Your task to perform on an android device: Search for a nice rug on Crate & Barrel Image 0: 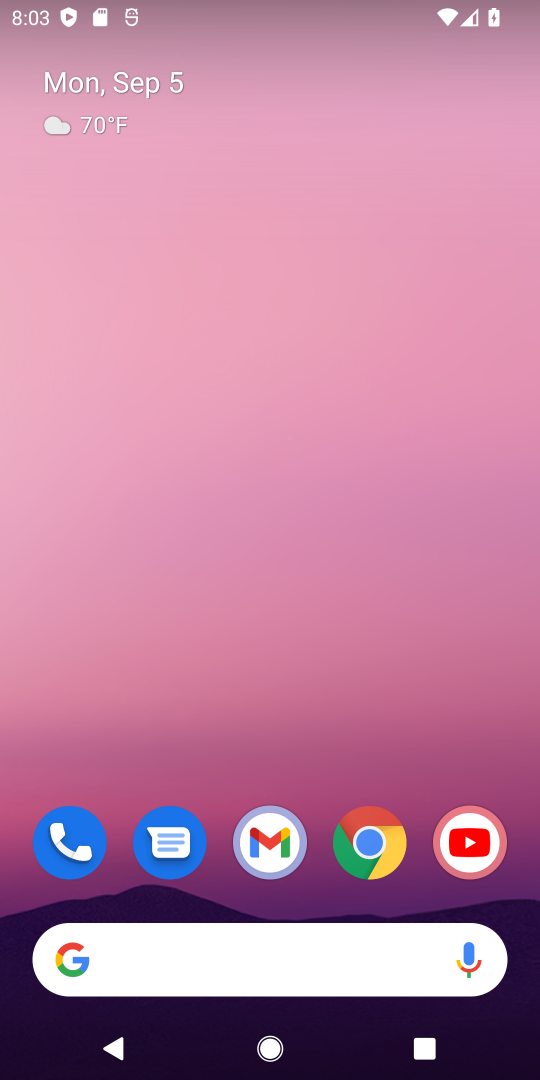
Step 0: click (371, 844)
Your task to perform on an android device: Search for a nice rug on Crate & Barrel Image 1: 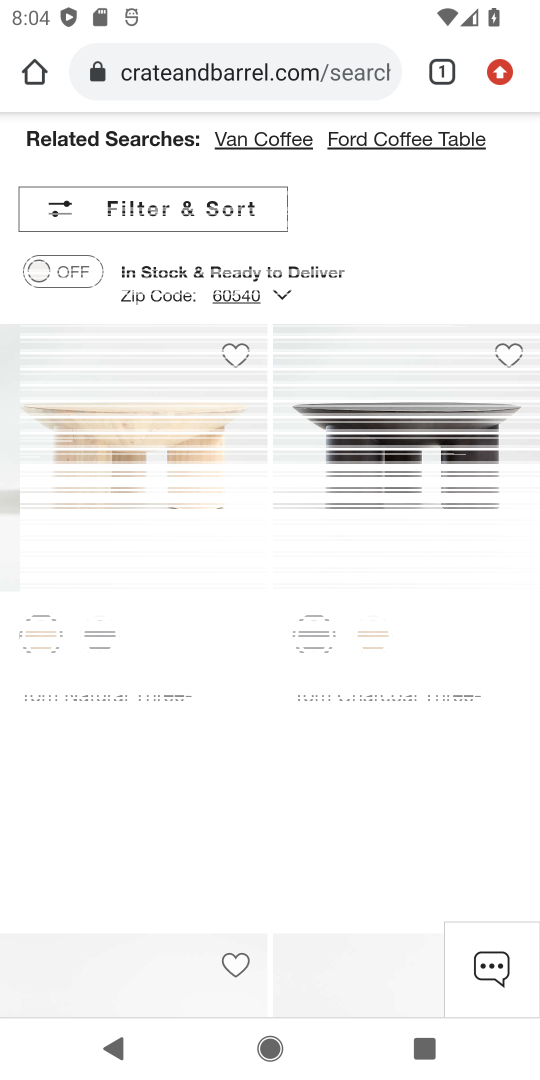
Step 1: click (313, 72)
Your task to perform on an android device: Search for a nice rug on Crate & Barrel Image 2: 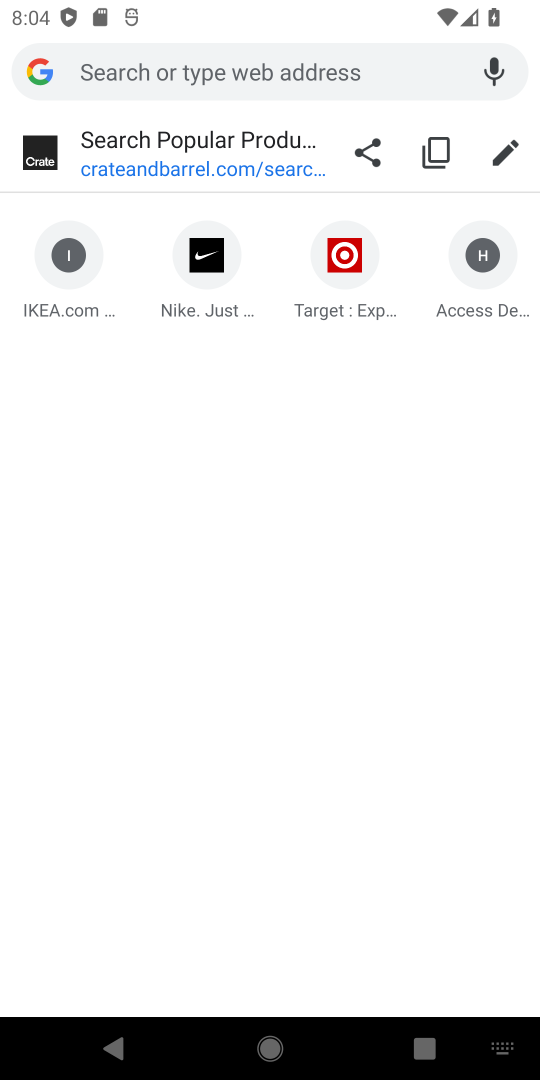
Step 2: click (262, 68)
Your task to perform on an android device: Search for a nice rug on Crate & Barrel Image 3: 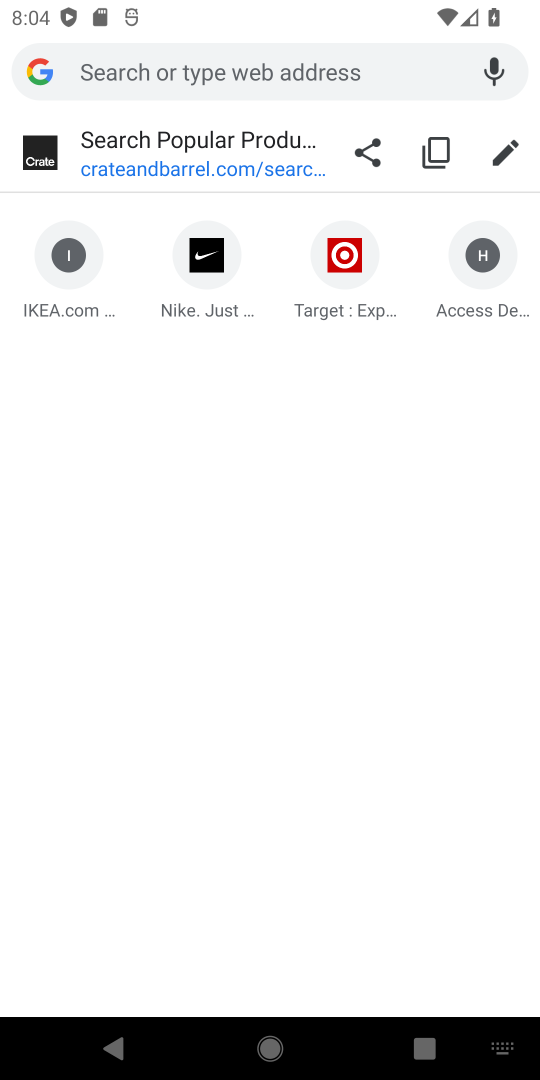
Step 3: type "Crate & Barrel"
Your task to perform on an android device: Search for a nice rug on Crate & Barrel Image 4: 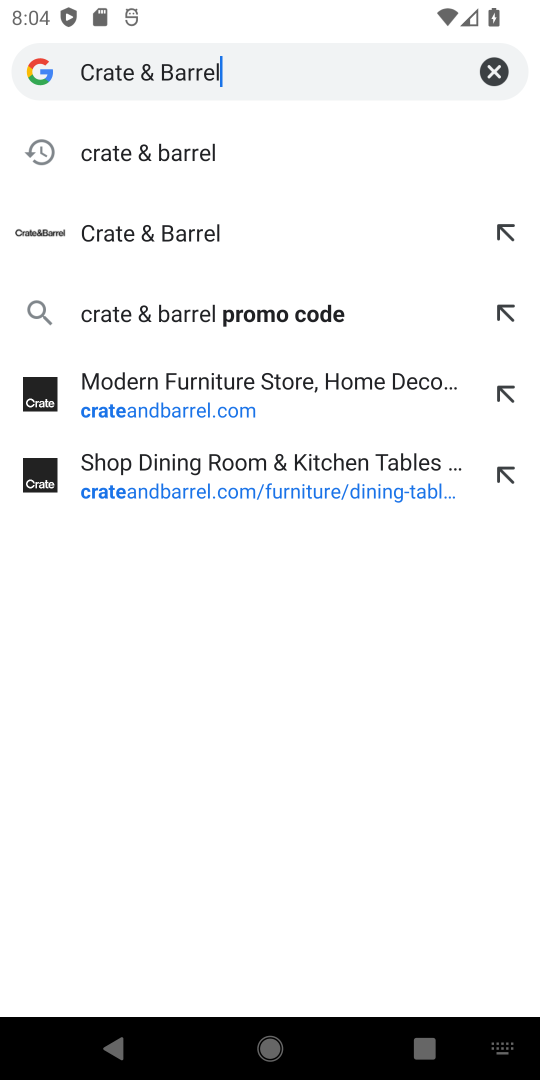
Step 4: click (251, 248)
Your task to perform on an android device: Search for a nice rug on Crate & Barrel Image 5: 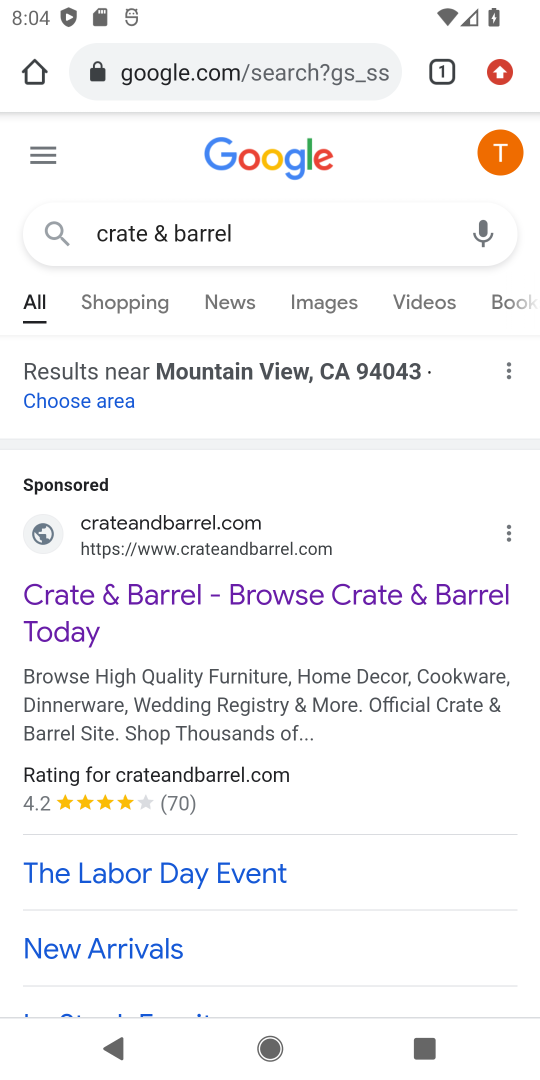
Step 5: click (221, 621)
Your task to perform on an android device: Search for a nice rug on Crate & Barrel Image 6: 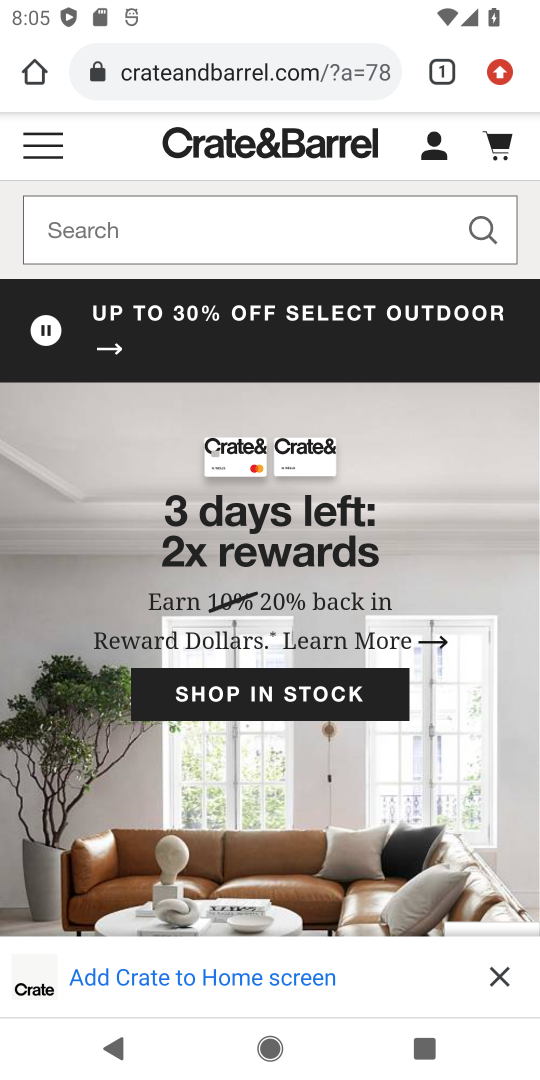
Step 6: click (200, 230)
Your task to perform on an android device: Search for a nice rug on Crate & Barrel Image 7: 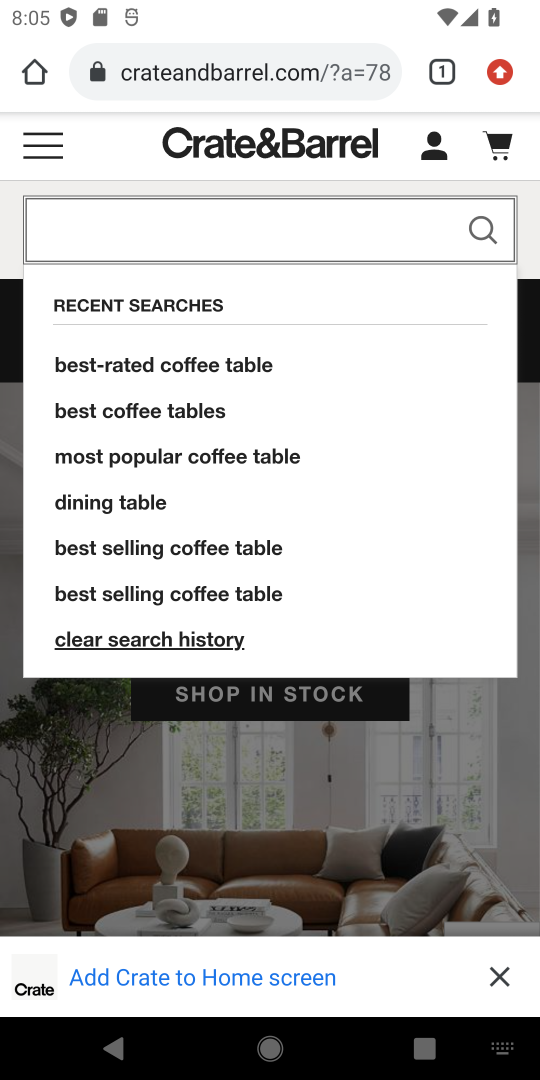
Step 7: type "nice rug"
Your task to perform on an android device: Search for a nice rug on Crate & Barrel Image 8: 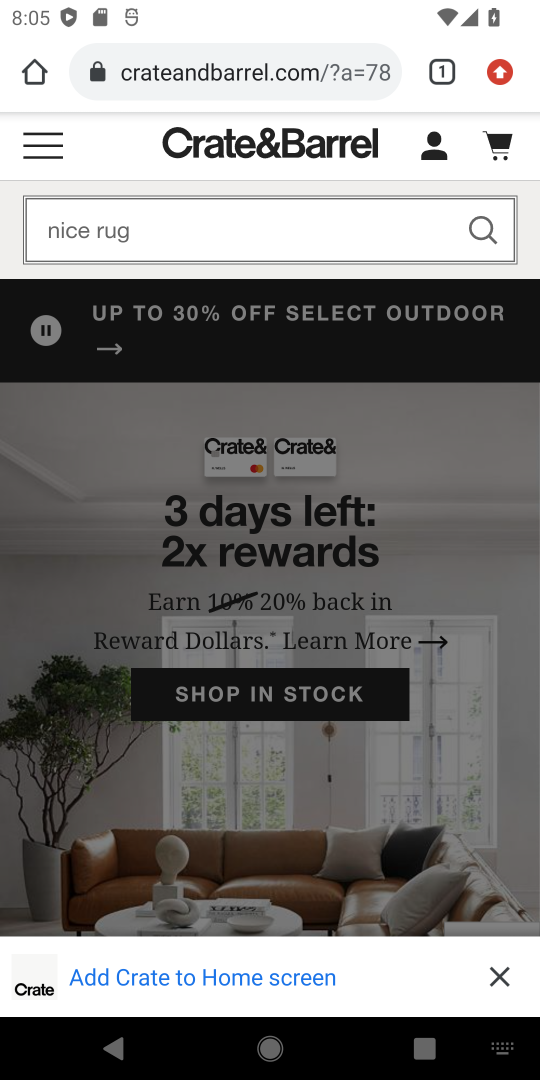
Step 8: click (473, 237)
Your task to perform on an android device: Search for a nice rug on Crate & Barrel Image 9: 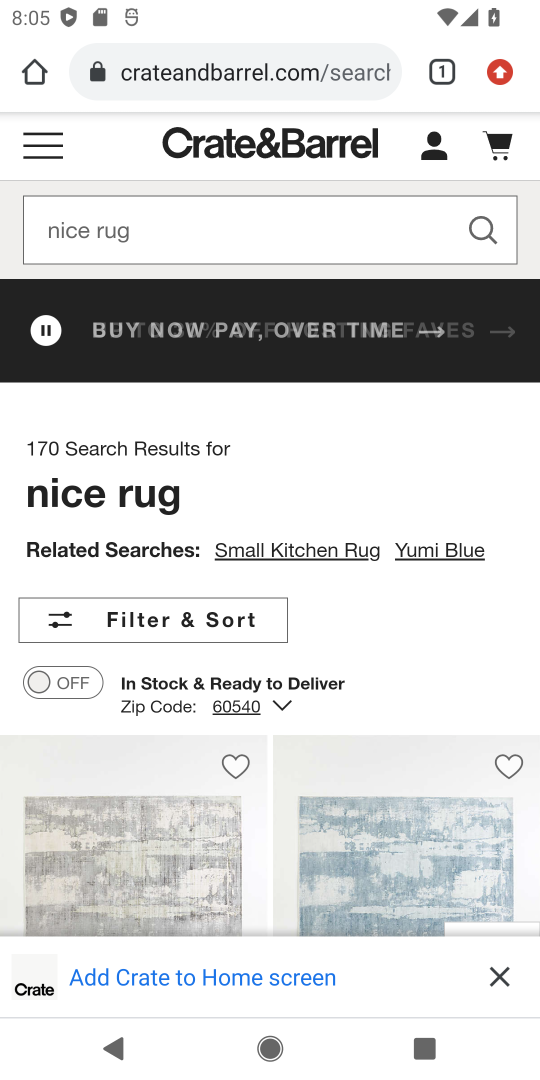
Step 9: task complete